Your task to perform on an android device: Show me popular games on the Play Store Image 0: 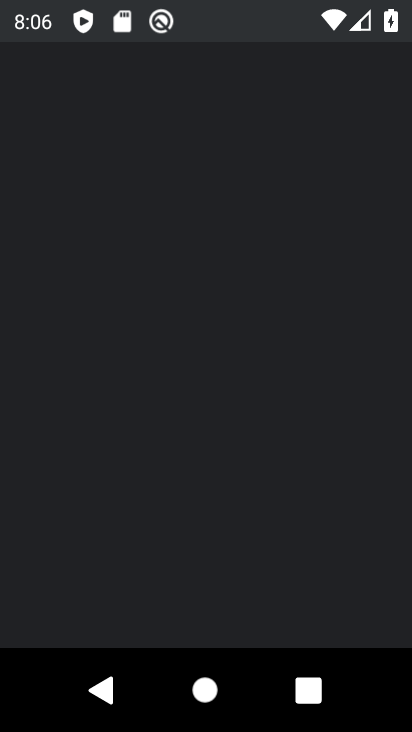
Step 0: drag from (306, 588) to (323, 94)
Your task to perform on an android device: Show me popular games on the Play Store Image 1: 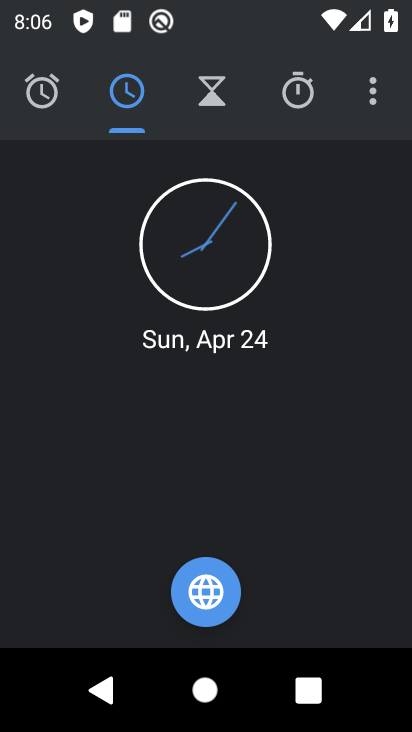
Step 1: press home button
Your task to perform on an android device: Show me popular games on the Play Store Image 2: 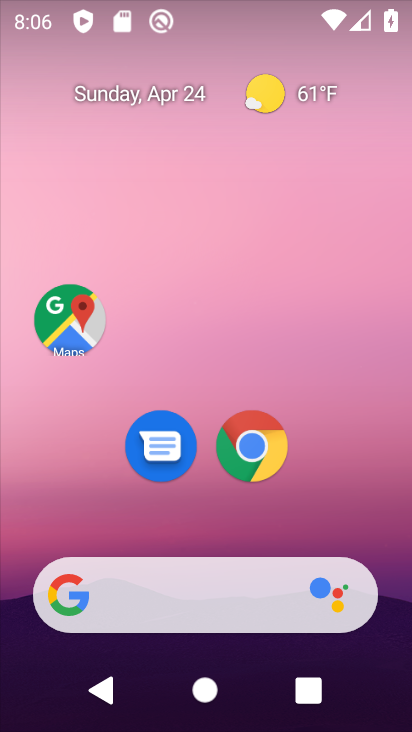
Step 2: drag from (229, 404) to (155, 0)
Your task to perform on an android device: Show me popular games on the Play Store Image 3: 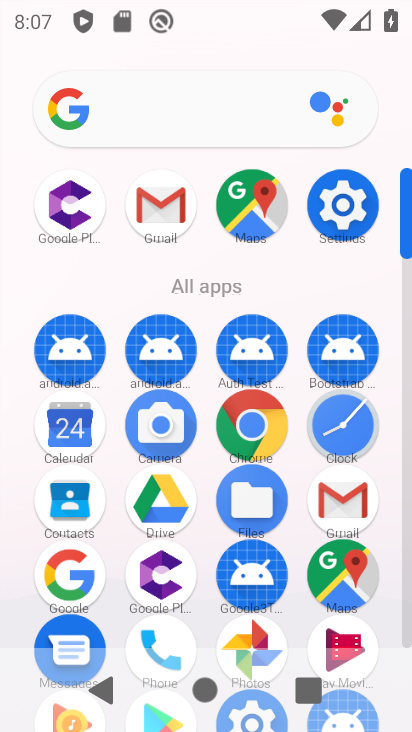
Step 3: drag from (228, 509) to (287, 146)
Your task to perform on an android device: Show me popular games on the Play Store Image 4: 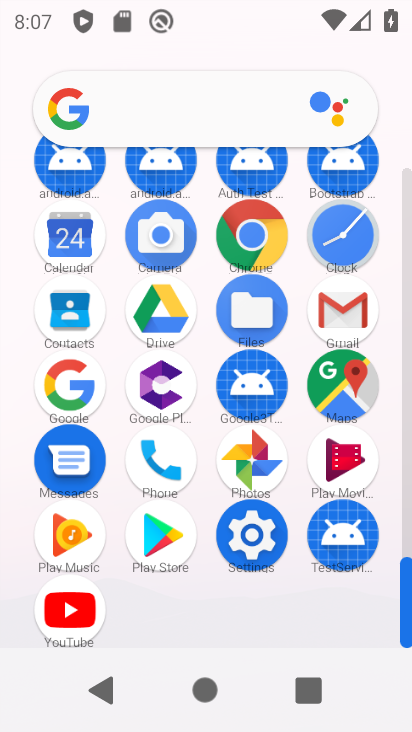
Step 4: click (159, 541)
Your task to perform on an android device: Show me popular games on the Play Store Image 5: 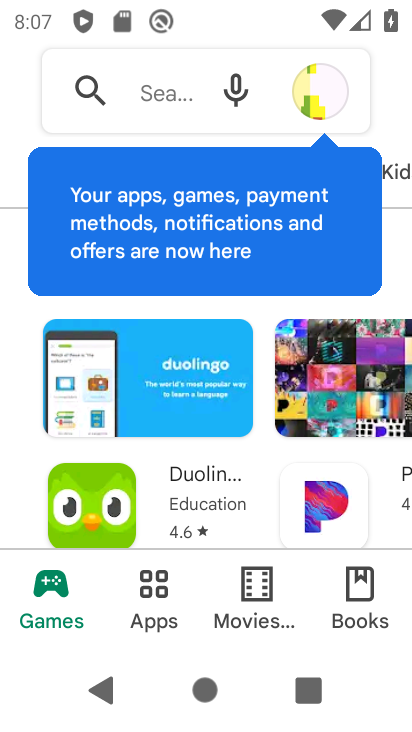
Step 5: task complete